Your task to perform on an android device: What is the recent news? Image 0: 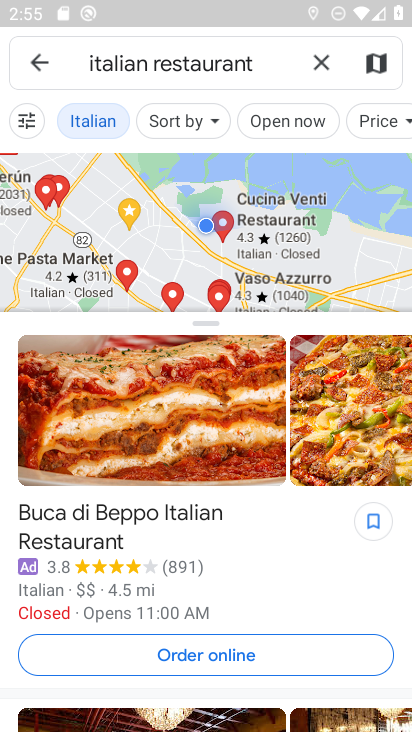
Step 0: press home button
Your task to perform on an android device: What is the recent news? Image 1: 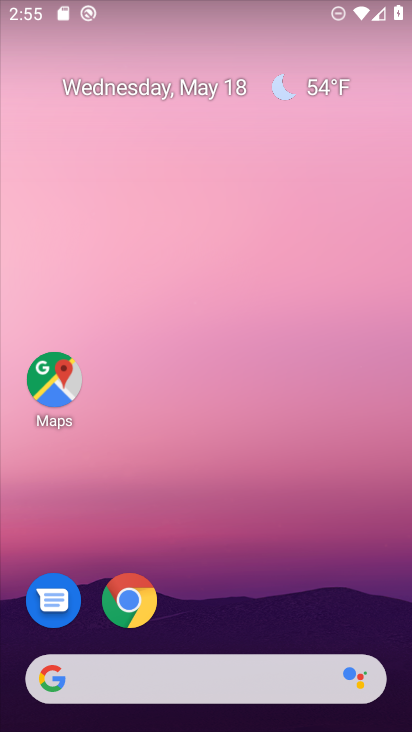
Step 1: click (183, 680)
Your task to perform on an android device: What is the recent news? Image 2: 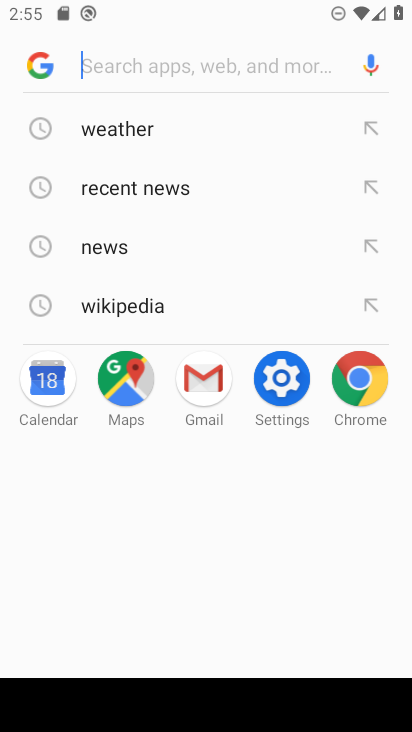
Step 2: click (212, 188)
Your task to perform on an android device: What is the recent news? Image 3: 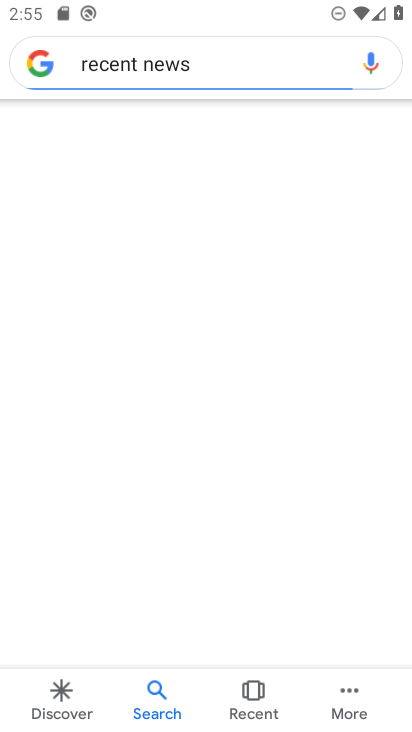
Step 3: click (233, 71)
Your task to perform on an android device: What is the recent news? Image 4: 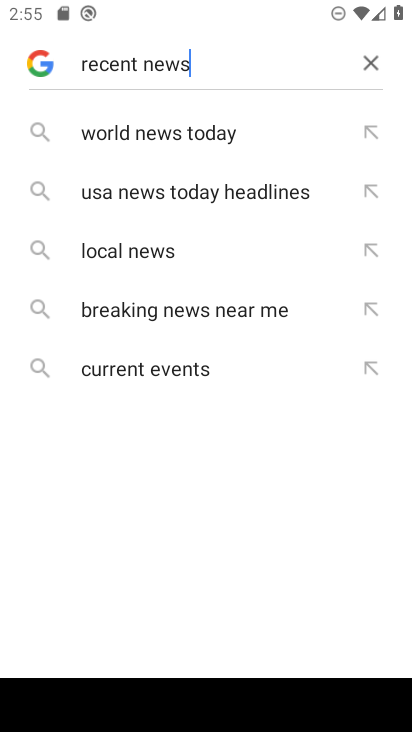
Step 4: type " ?"
Your task to perform on an android device: What is the recent news? Image 5: 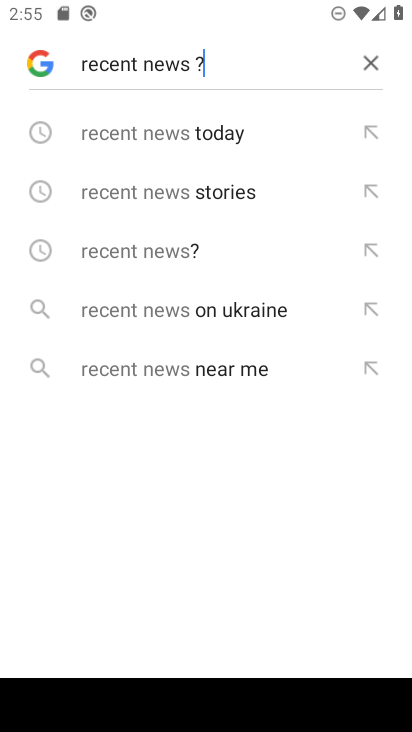
Step 5: click (196, 255)
Your task to perform on an android device: What is the recent news? Image 6: 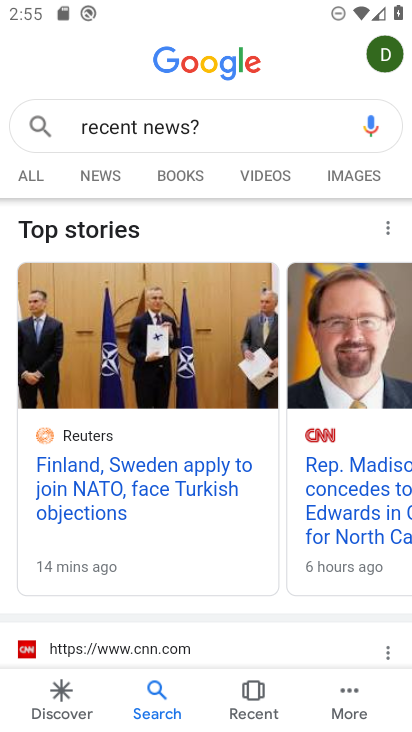
Step 6: task complete